Your task to perform on an android device: Open Google Maps Image 0: 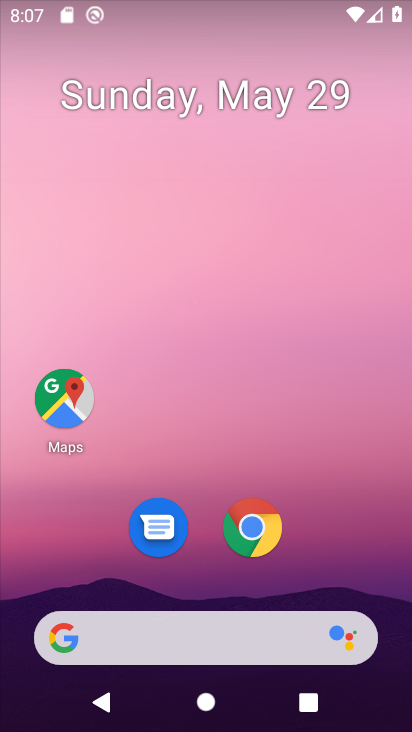
Step 0: click (59, 392)
Your task to perform on an android device: Open Google Maps Image 1: 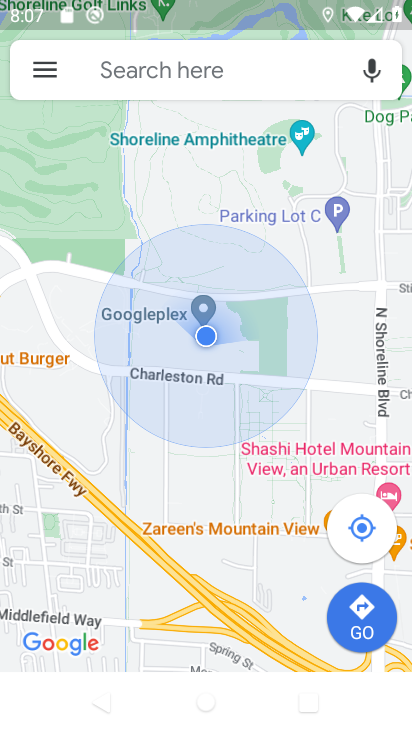
Step 1: click (197, 488)
Your task to perform on an android device: Open Google Maps Image 2: 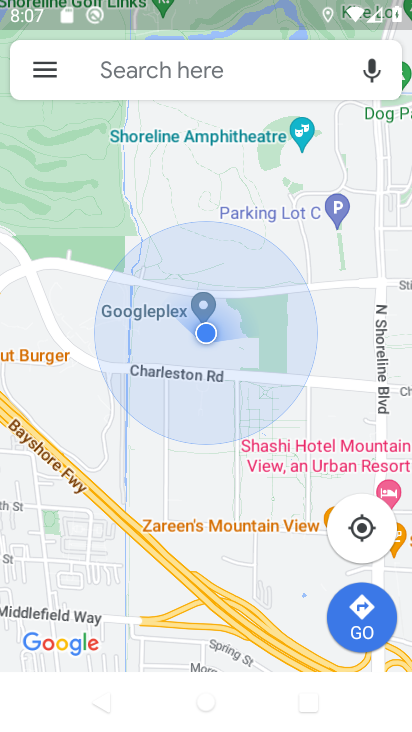
Step 2: task complete